Your task to perform on an android device: snooze an email in the gmail app Image 0: 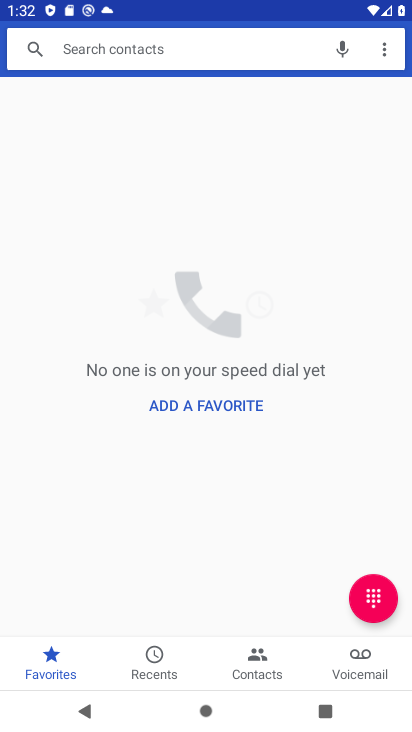
Step 0: press home button
Your task to perform on an android device: snooze an email in the gmail app Image 1: 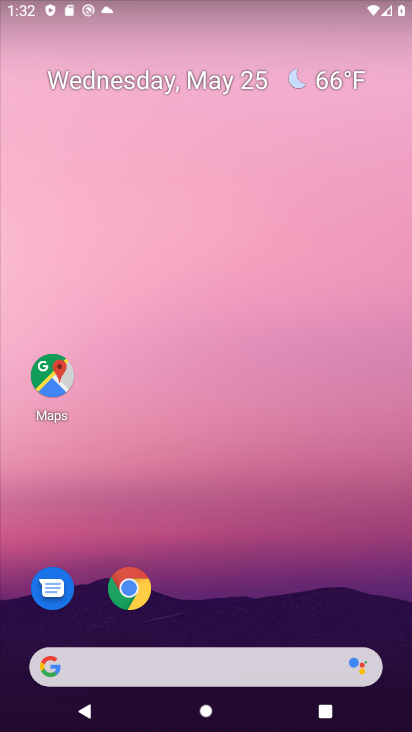
Step 1: drag from (255, 642) to (369, 51)
Your task to perform on an android device: snooze an email in the gmail app Image 2: 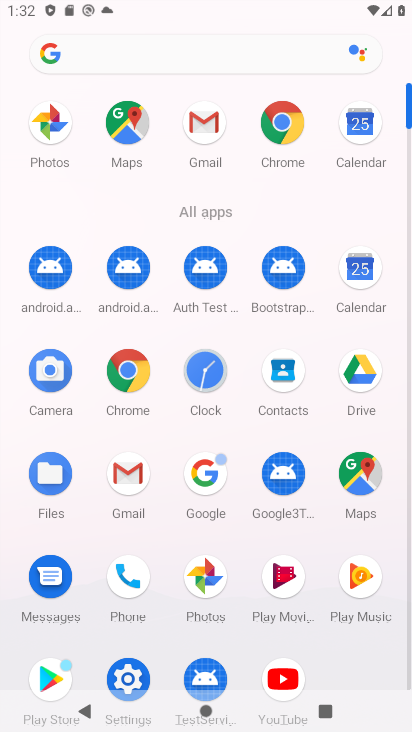
Step 2: click (202, 139)
Your task to perform on an android device: snooze an email in the gmail app Image 3: 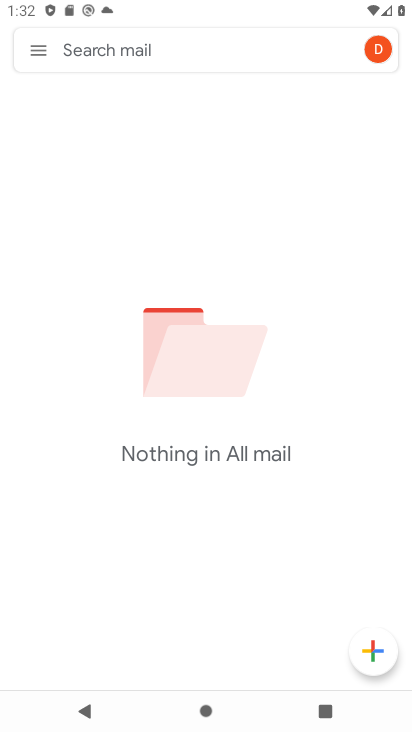
Step 3: task complete